Your task to perform on an android device: Show me recent news Image 0: 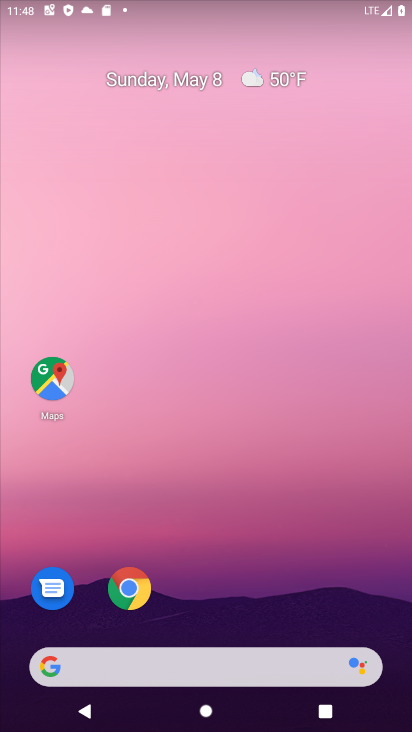
Step 0: drag from (272, 588) to (258, 167)
Your task to perform on an android device: Show me recent news Image 1: 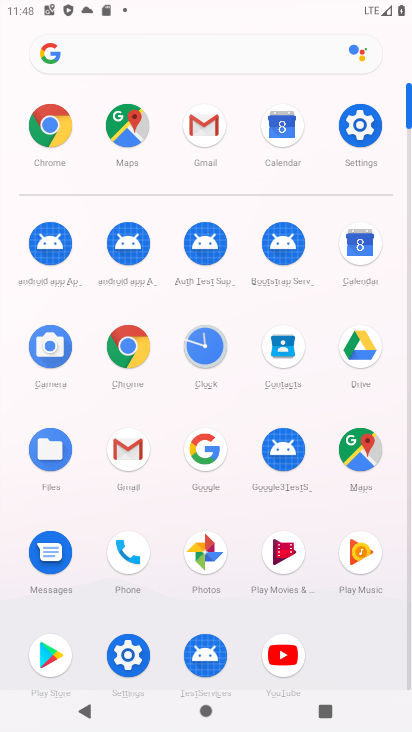
Step 1: click (211, 448)
Your task to perform on an android device: Show me recent news Image 2: 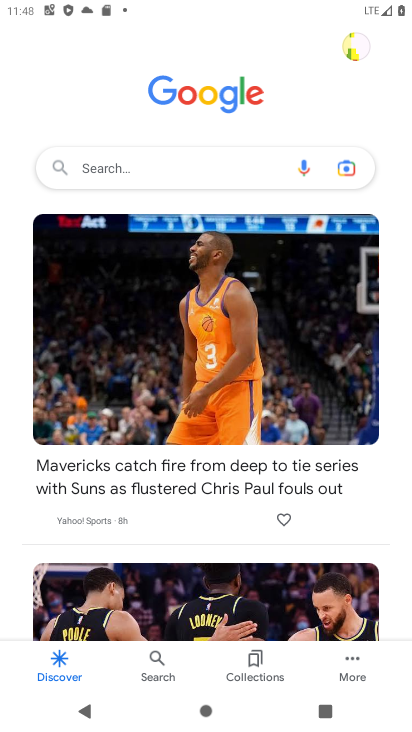
Step 2: click (173, 181)
Your task to perform on an android device: Show me recent news Image 3: 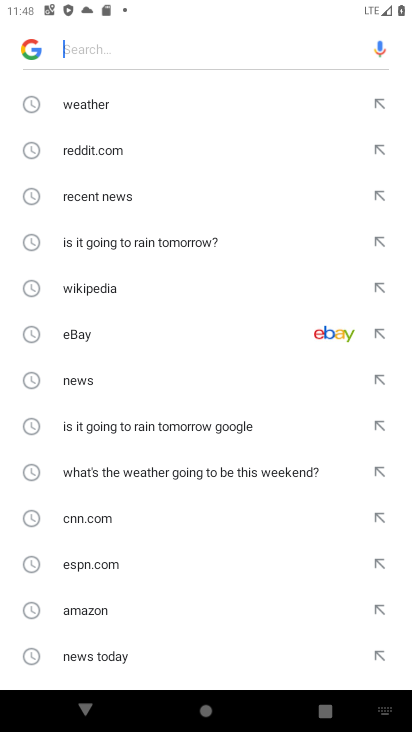
Step 3: click (132, 195)
Your task to perform on an android device: Show me recent news Image 4: 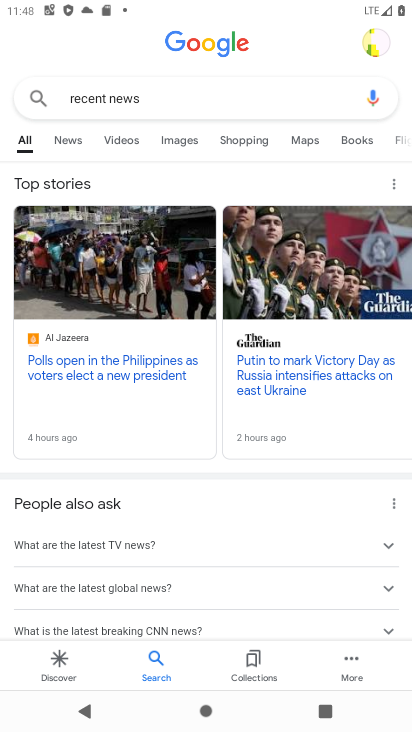
Step 4: task complete